Your task to perform on an android device: Open Youtube and go to "Your channel" Image 0: 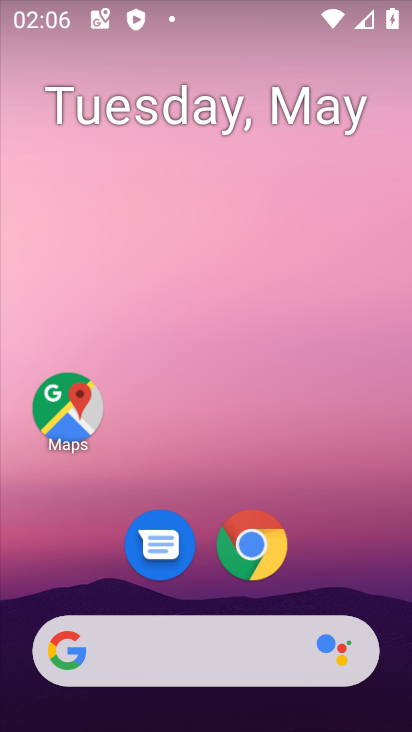
Step 0: drag from (394, 625) to (327, 159)
Your task to perform on an android device: Open Youtube and go to "Your channel" Image 1: 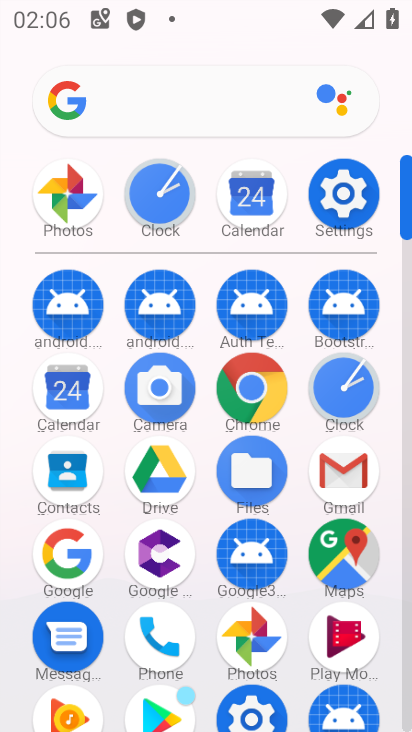
Step 1: click (407, 684)
Your task to perform on an android device: Open Youtube and go to "Your channel" Image 2: 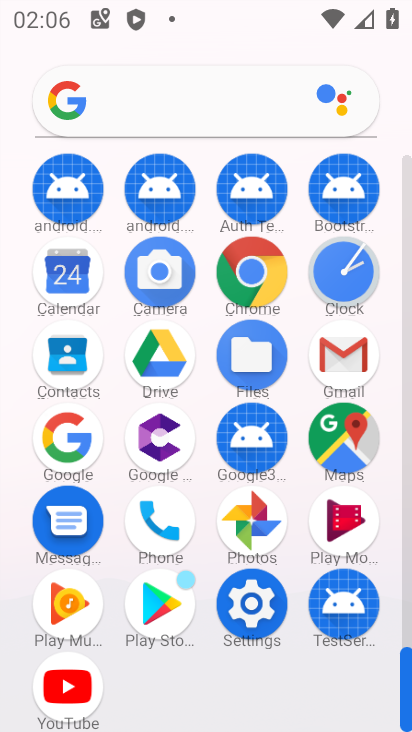
Step 2: click (62, 684)
Your task to perform on an android device: Open Youtube and go to "Your channel" Image 3: 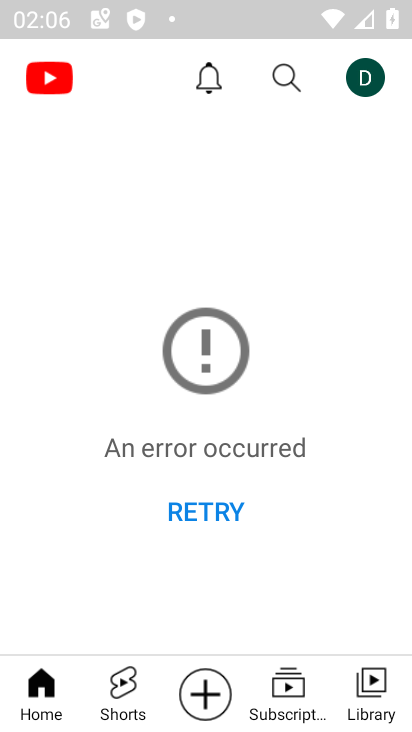
Step 3: click (365, 82)
Your task to perform on an android device: Open Youtube and go to "Your channel" Image 4: 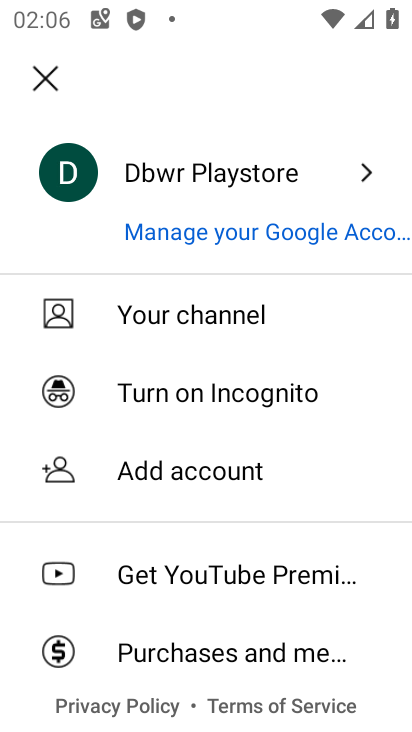
Step 4: click (171, 318)
Your task to perform on an android device: Open Youtube and go to "Your channel" Image 5: 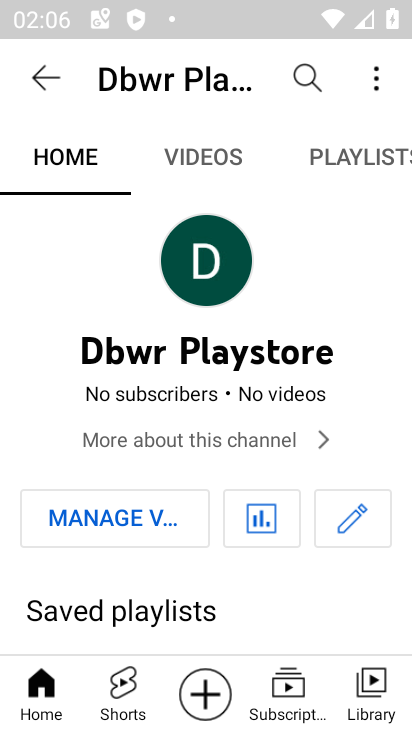
Step 5: task complete